Your task to perform on an android device: turn on location history Image 0: 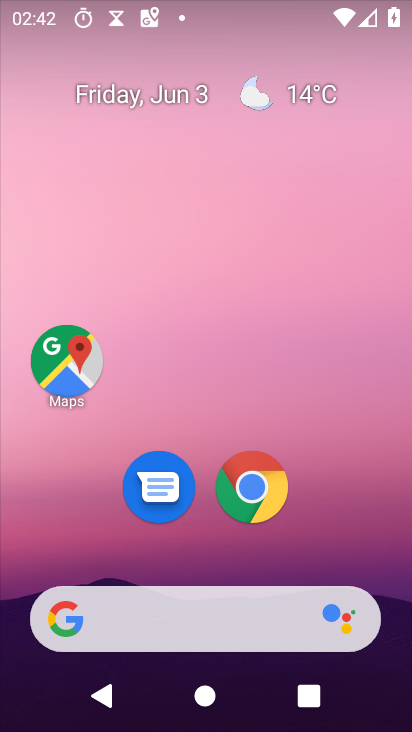
Step 0: drag from (340, 492) to (139, 47)
Your task to perform on an android device: turn on location history Image 1: 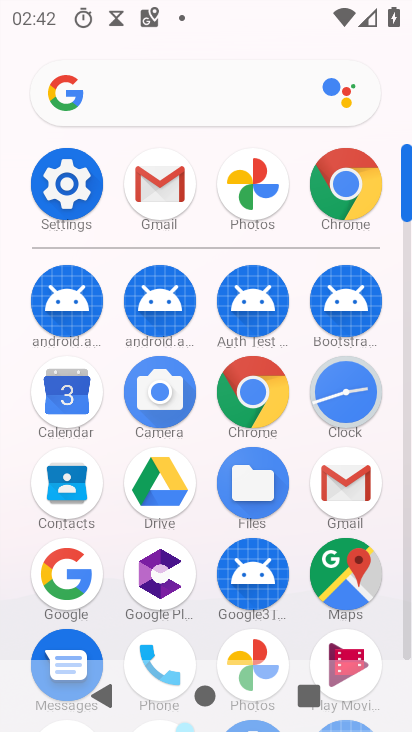
Step 1: click (68, 181)
Your task to perform on an android device: turn on location history Image 2: 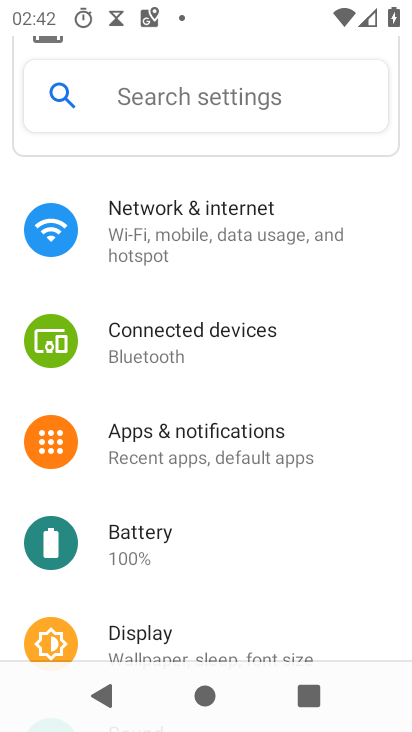
Step 2: drag from (253, 395) to (177, 4)
Your task to perform on an android device: turn on location history Image 3: 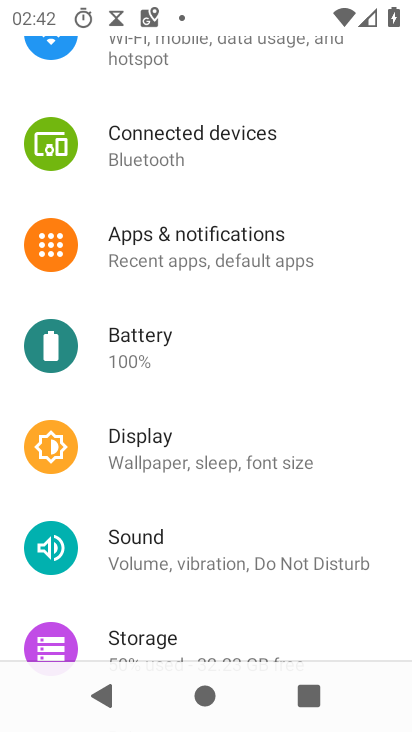
Step 3: drag from (225, 329) to (211, 89)
Your task to perform on an android device: turn on location history Image 4: 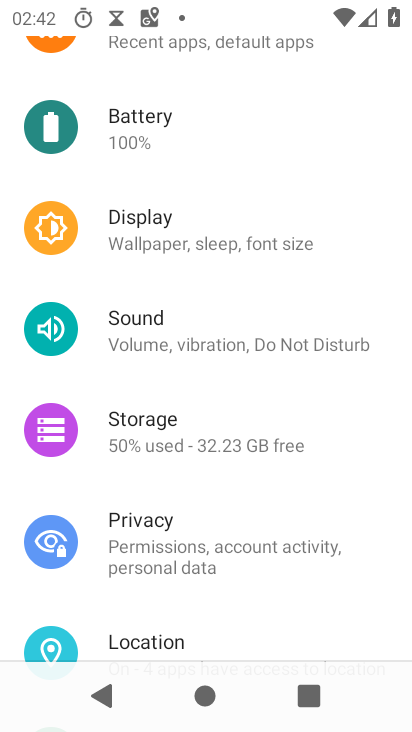
Step 4: click (196, 634)
Your task to perform on an android device: turn on location history Image 5: 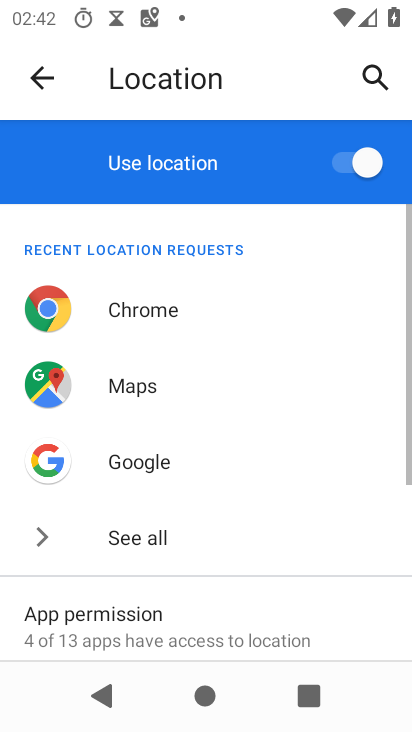
Step 5: drag from (216, 538) to (231, 74)
Your task to perform on an android device: turn on location history Image 6: 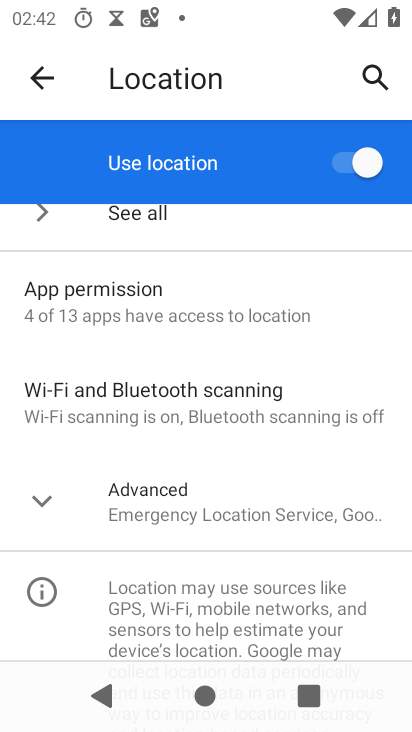
Step 6: click (238, 494)
Your task to perform on an android device: turn on location history Image 7: 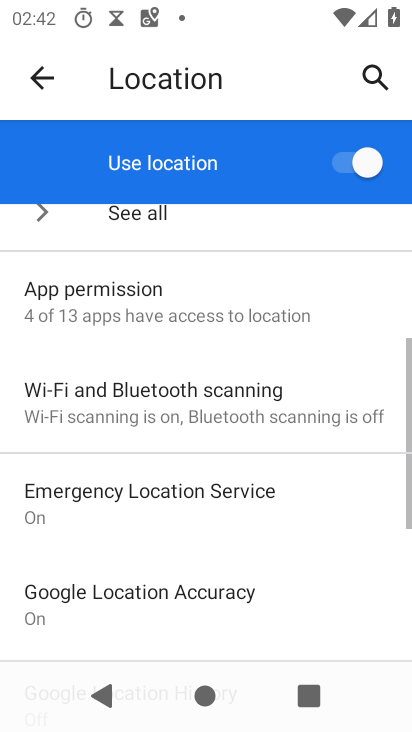
Step 7: drag from (223, 472) to (205, 173)
Your task to perform on an android device: turn on location history Image 8: 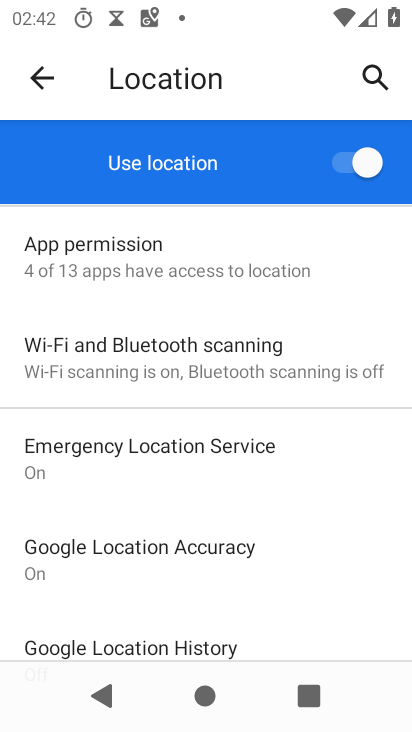
Step 8: click (216, 623)
Your task to perform on an android device: turn on location history Image 9: 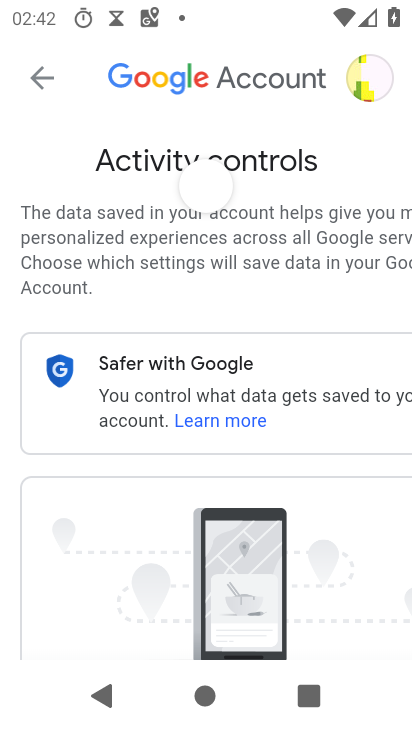
Step 9: drag from (138, 603) to (134, 50)
Your task to perform on an android device: turn on location history Image 10: 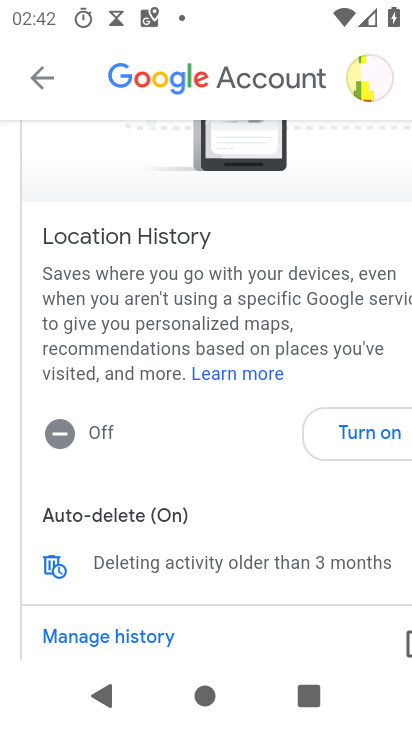
Step 10: click (359, 430)
Your task to perform on an android device: turn on location history Image 11: 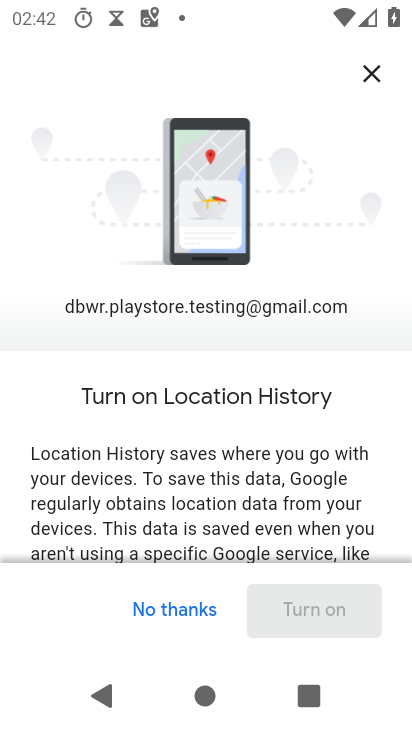
Step 11: drag from (263, 521) to (47, 26)
Your task to perform on an android device: turn on location history Image 12: 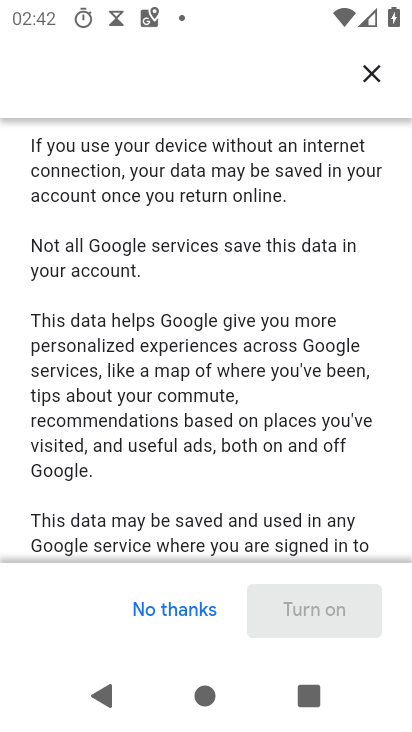
Step 12: drag from (191, 378) to (187, 7)
Your task to perform on an android device: turn on location history Image 13: 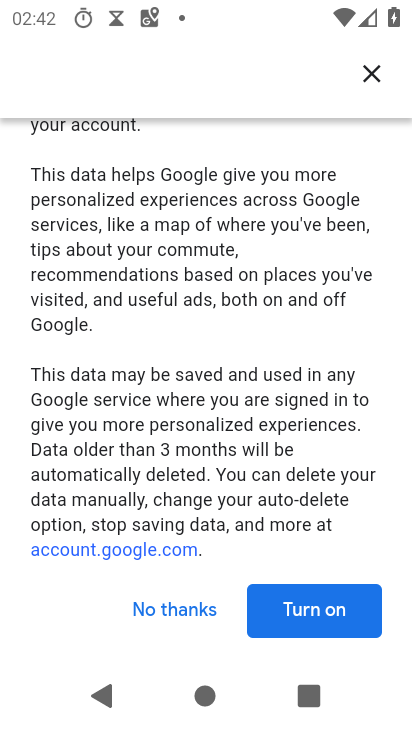
Step 13: click (324, 607)
Your task to perform on an android device: turn on location history Image 14: 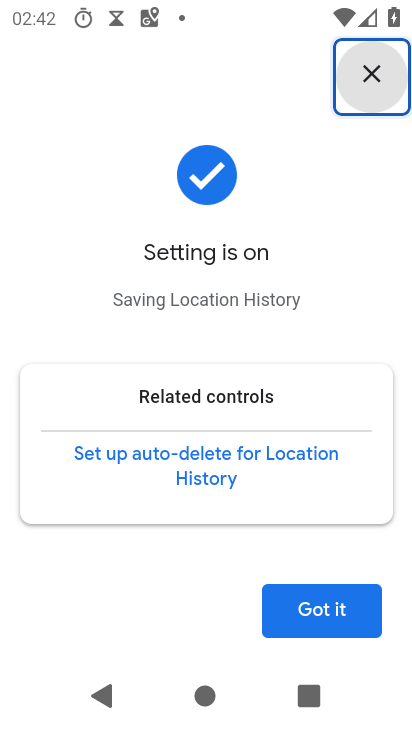
Step 14: click (323, 612)
Your task to perform on an android device: turn on location history Image 15: 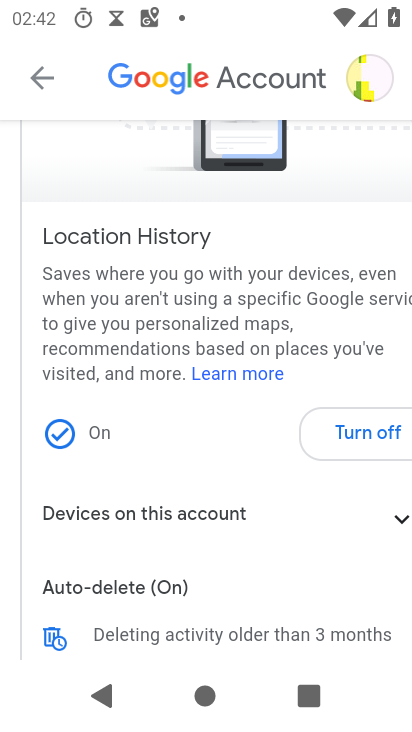
Step 15: task complete